Your task to perform on an android device: Is it going to rain today? Image 0: 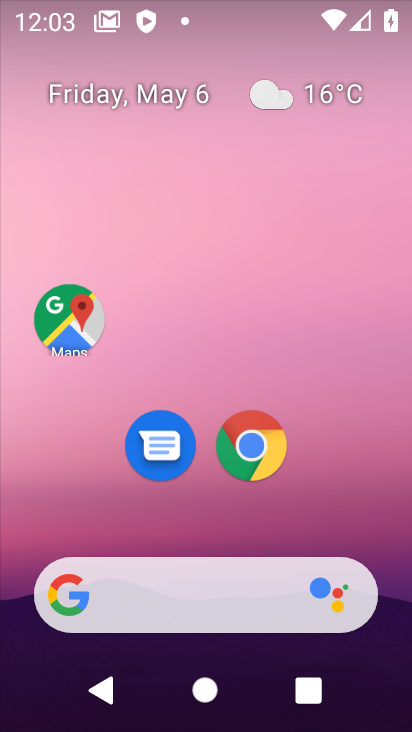
Step 0: drag from (362, 522) to (175, 134)
Your task to perform on an android device: Is it going to rain today? Image 1: 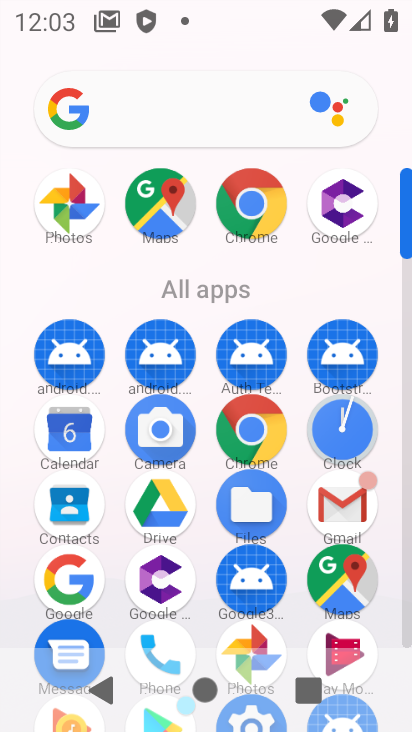
Step 1: press home button
Your task to perform on an android device: Is it going to rain today? Image 2: 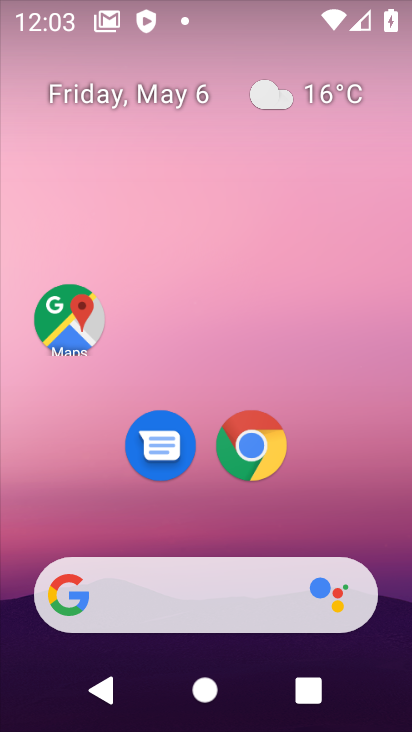
Step 2: drag from (6, 195) to (304, 368)
Your task to perform on an android device: Is it going to rain today? Image 3: 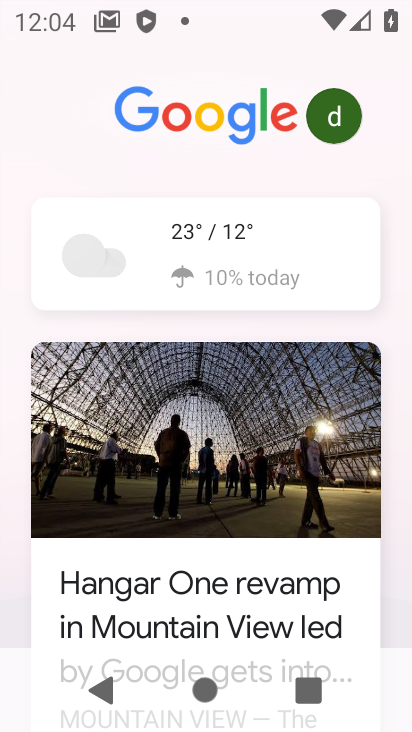
Step 3: click (192, 269)
Your task to perform on an android device: Is it going to rain today? Image 4: 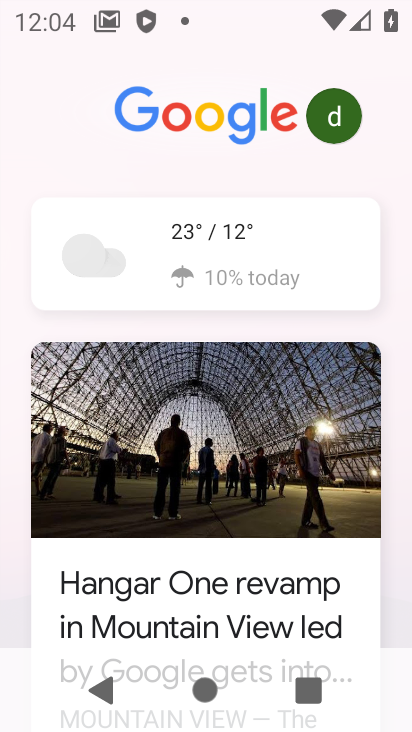
Step 4: click (192, 269)
Your task to perform on an android device: Is it going to rain today? Image 5: 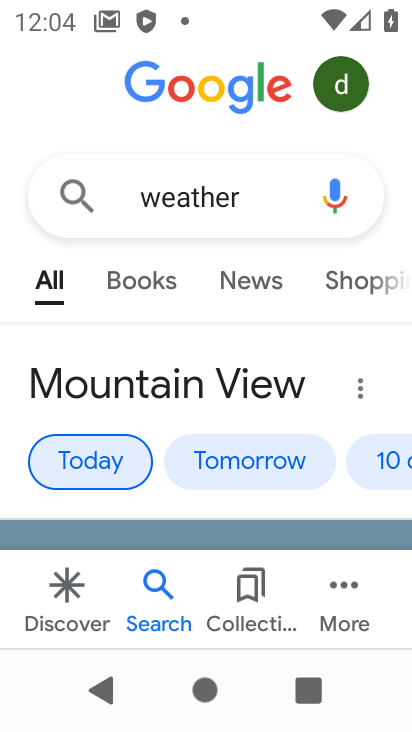
Step 5: click (250, 467)
Your task to perform on an android device: Is it going to rain today? Image 6: 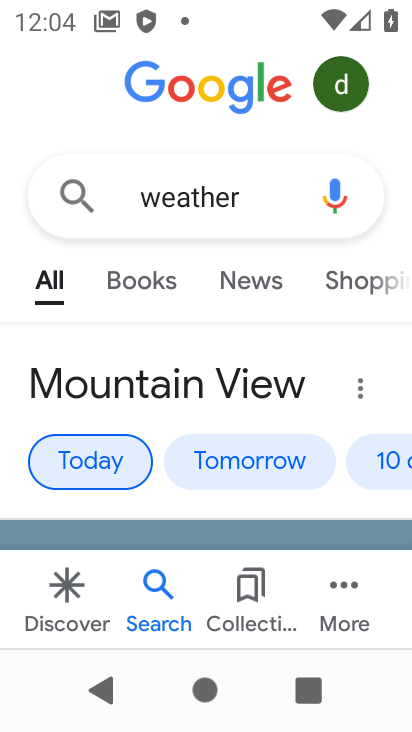
Step 6: click (88, 453)
Your task to perform on an android device: Is it going to rain today? Image 7: 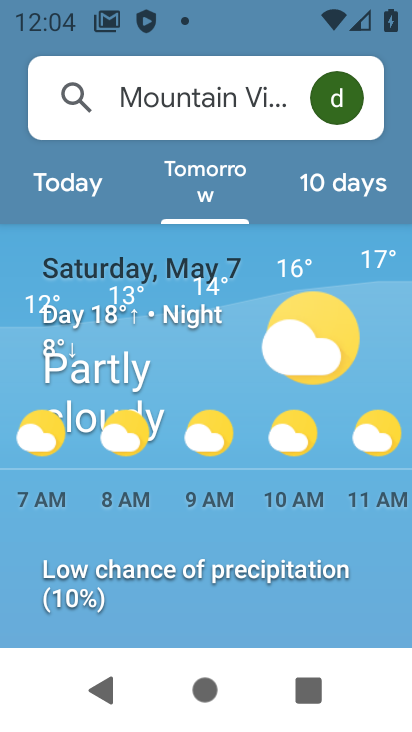
Step 7: task complete